Your task to perform on an android device: What's the news in Thailand? Image 0: 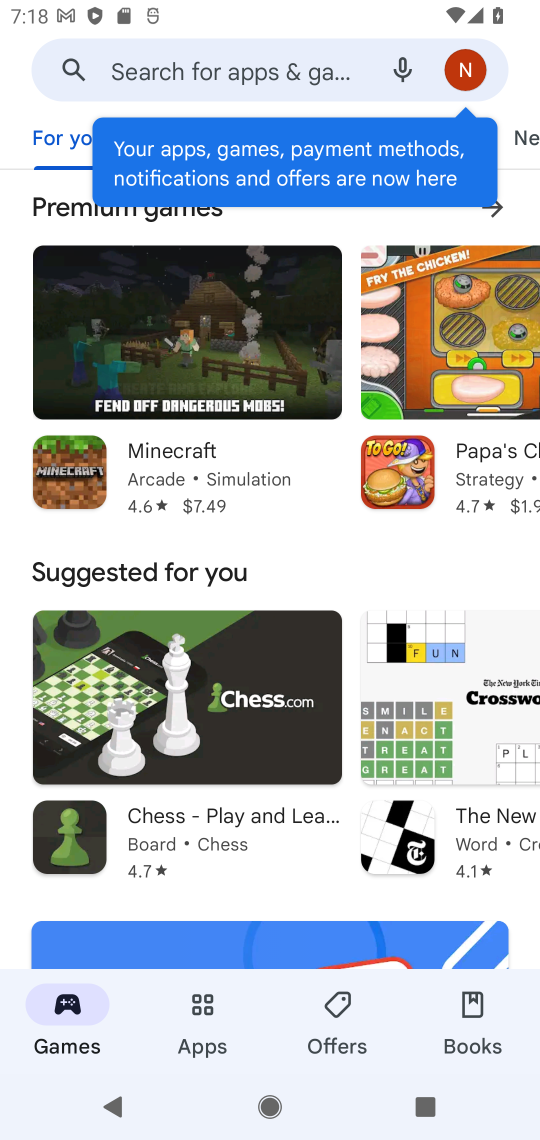
Step 0: press home button
Your task to perform on an android device: What's the news in Thailand? Image 1: 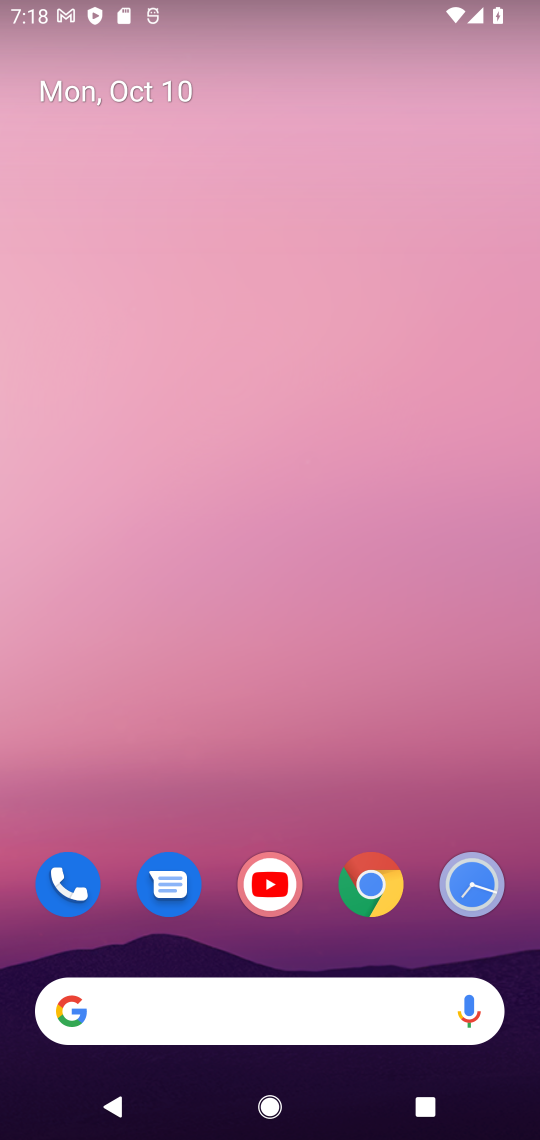
Step 1: click (363, 874)
Your task to perform on an android device: What's the news in Thailand? Image 2: 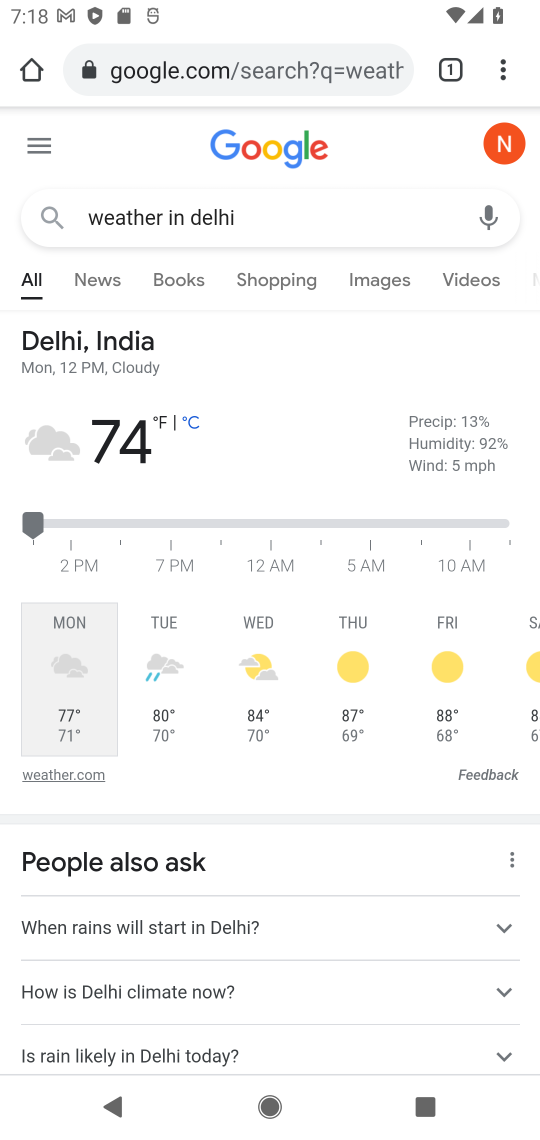
Step 2: click (345, 76)
Your task to perform on an android device: What's the news in Thailand? Image 3: 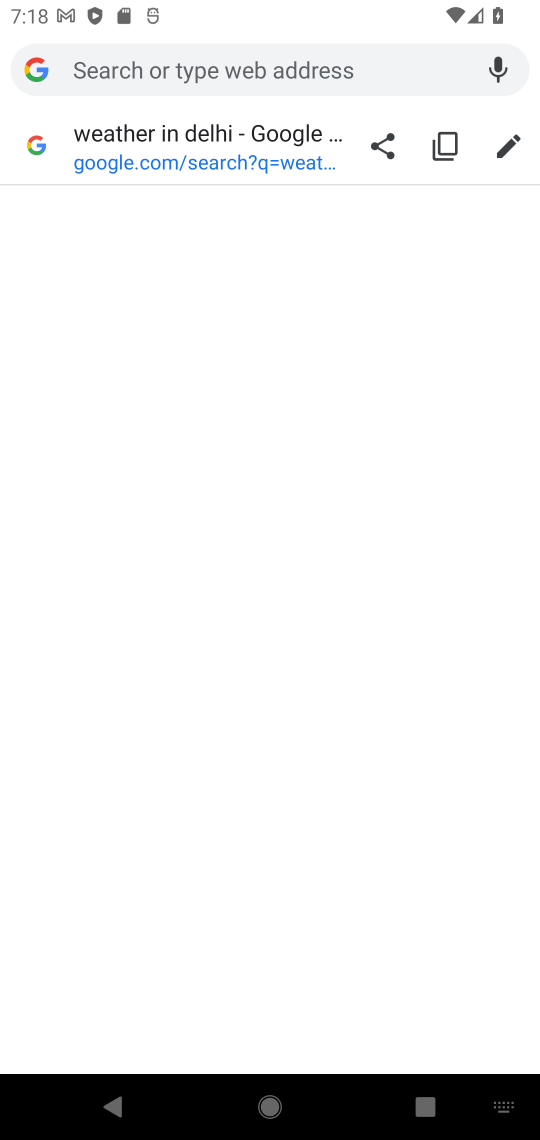
Step 3: type "thailand"
Your task to perform on an android device: What's the news in Thailand? Image 4: 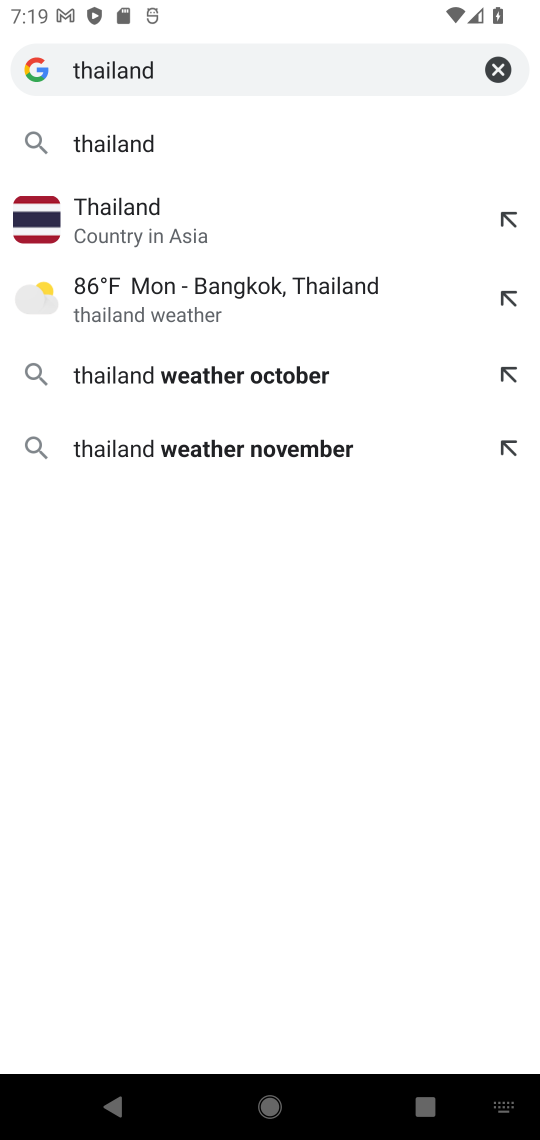
Step 4: click (170, 140)
Your task to perform on an android device: What's the news in Thailand? Image 5: 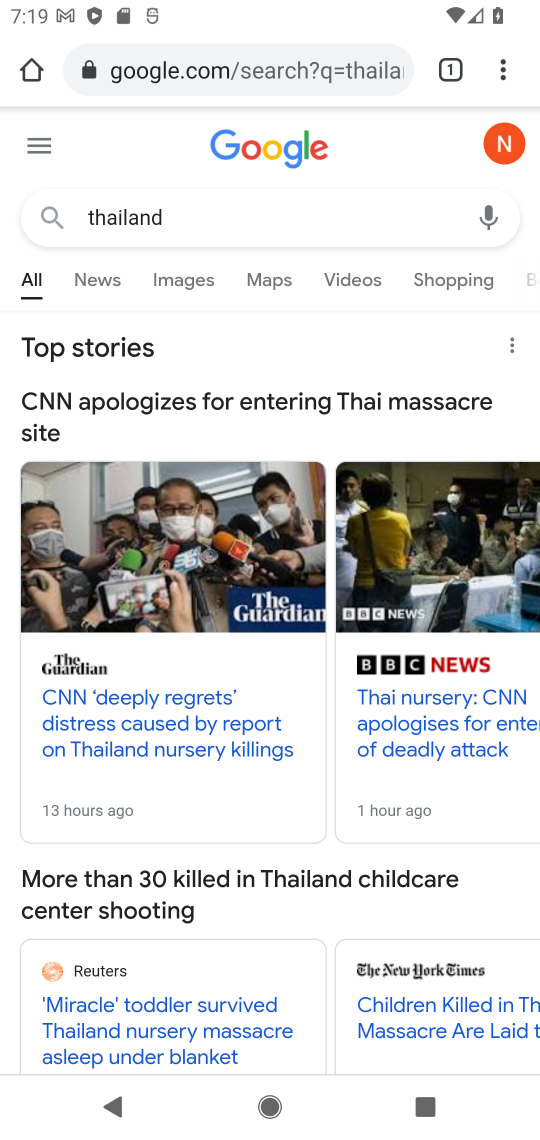
Step 5: click (93, 280)
Your task to perform on an android device: What's the news in Thailand? Image 6: 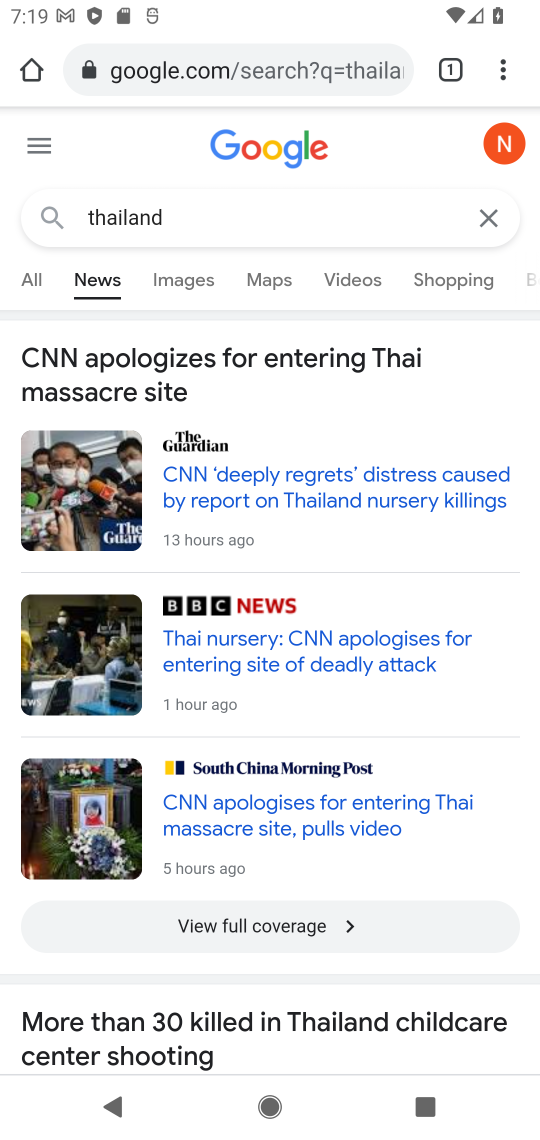
Step 6: task complete